Your task to perform on an android device: Open Maps and search for coffee Image 0: 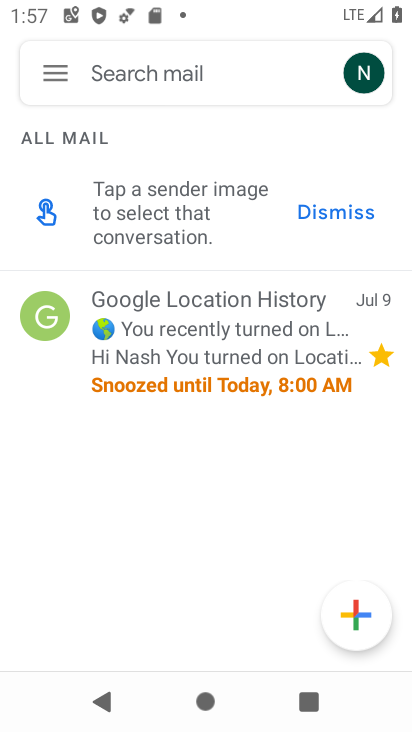
Step 0: press home button
Your task to perform on an android device: Open Maps and search for coffee Image 1: 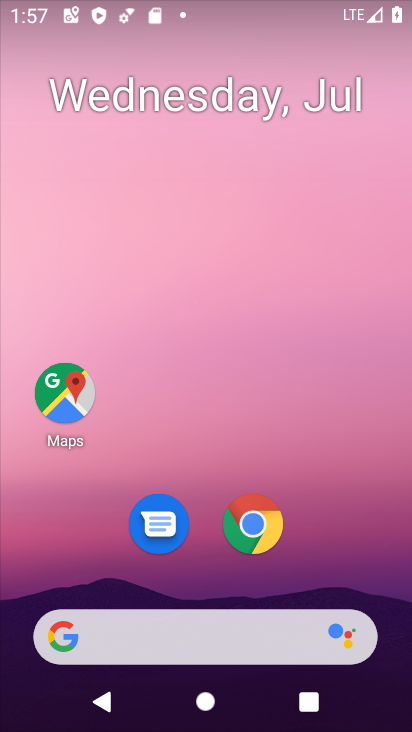
Step 1: click (61, 393)
Your task to perform on an android device: Open Maps and search for coffee Image 2: 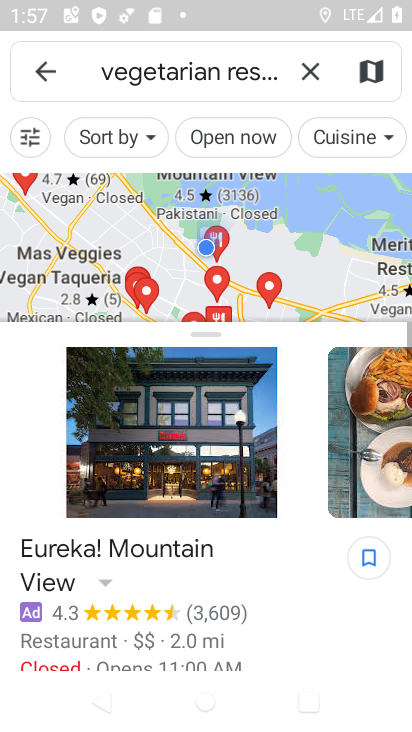
Step 2: click (310, 64)
Your task to perform on an android device: Open Maps and search for coffee Image 3: 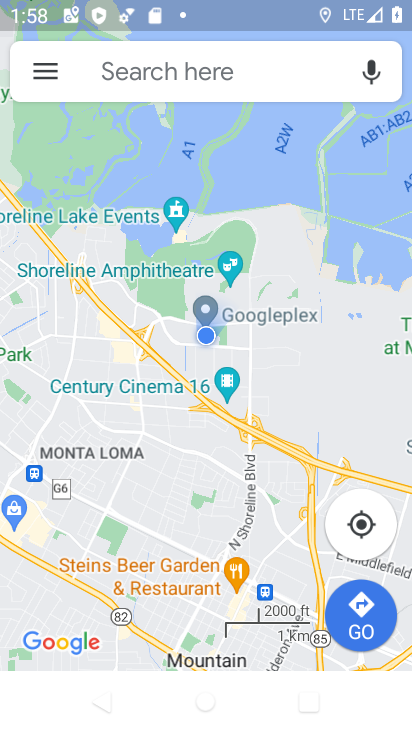
Step 3: click (231, 69)
Your task to perform on an android device: Open Maps and search for coffee Image 4: 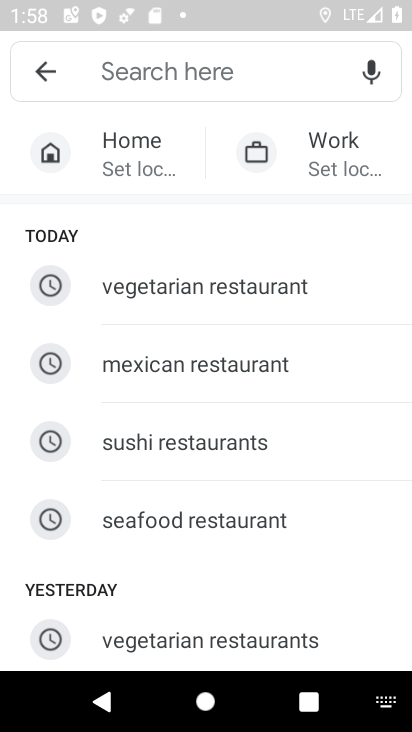
Step 4: drag from (236, 521) to (261, 266)
Your task to perform on an android device: Open Maps and search for coffee Image 5: 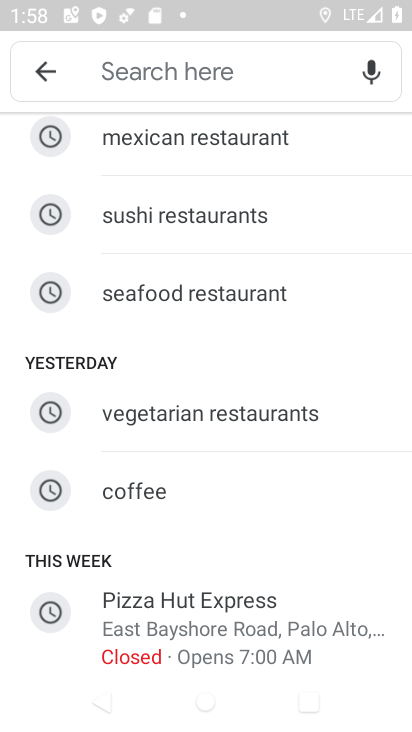
Step 5: click (149, 485)
Your task to perform on an android device: Open Maps and search for coffee Image 6: 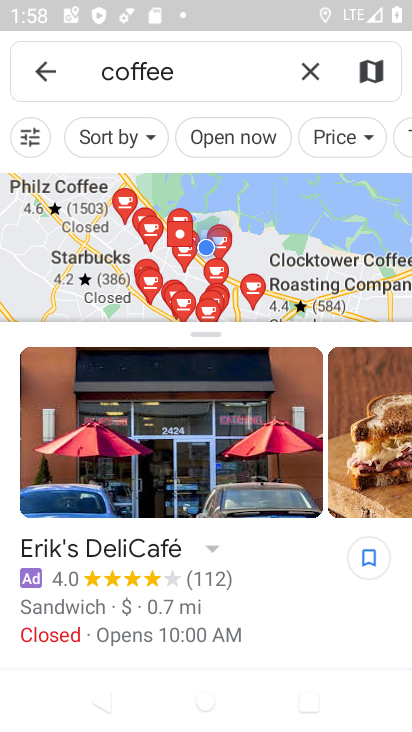
Step 6: task complete